Your task to perform on an android device: toggle notification dots Image 0: 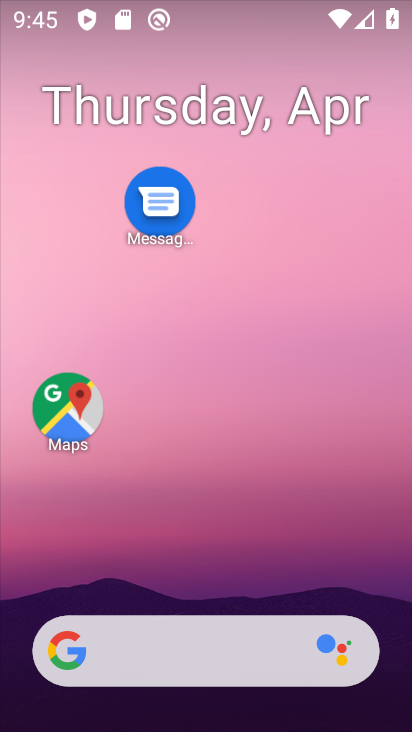
Step 0: drag from (201, 506) to (249, 74)
Your task to perform on an android device: toggle notification dots Image 1: 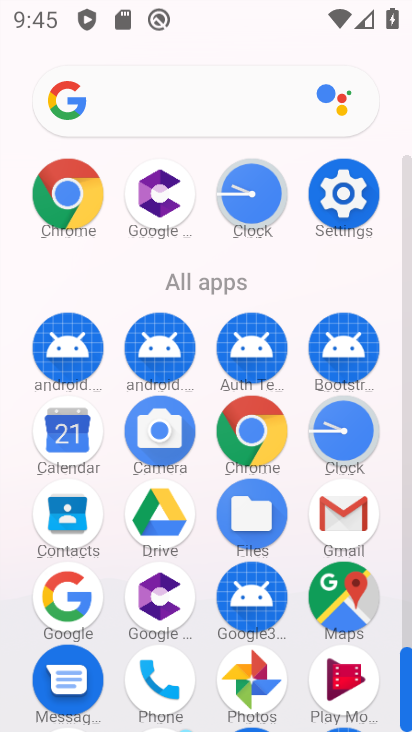
Step 1: click (332, 186)
Your task to perform on an android device: toggle notification dots Image 2: 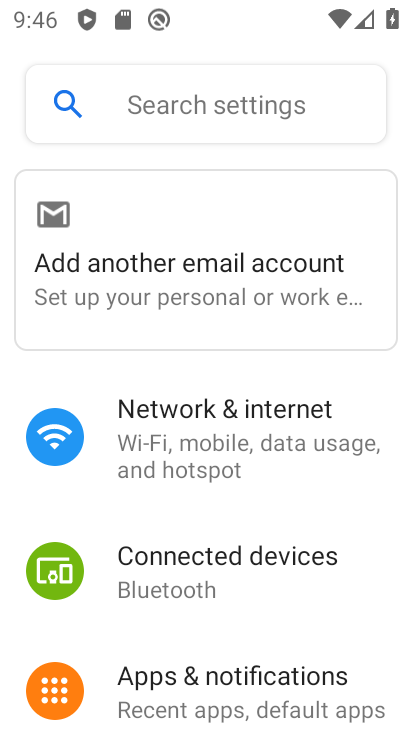
Step 2: drag from (246, 658) to (267, 441)
Your task to perform on an android device: toggle notification dots Image 3: 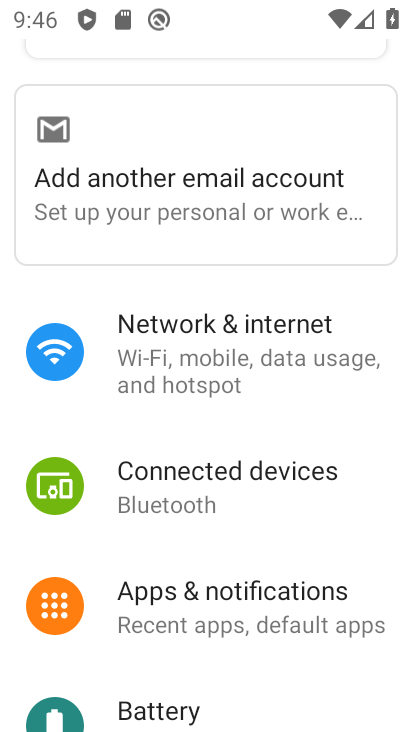
Step 3: click (236, 585)
Your task to perform on an android device: toggle notification dots Image 4: 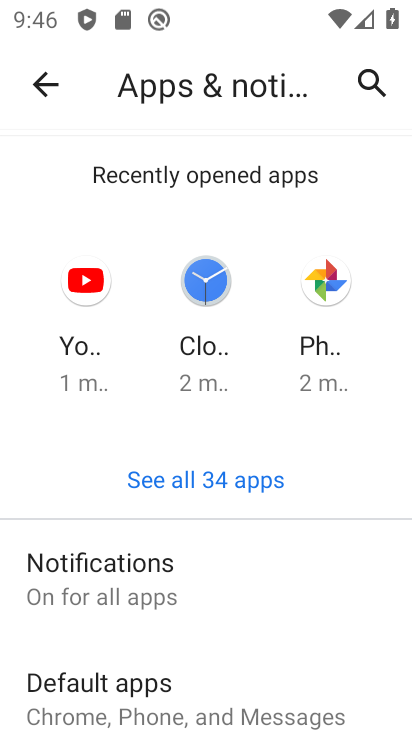
Step 4: click (163, 549)
Your task to perform on an android device: toggle notification dots Image 5: 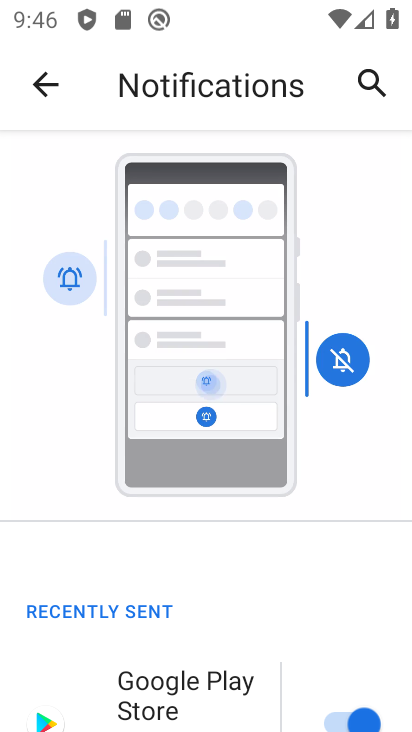
Step 5: drag from (192, 669) to (205, 172)
Your task to perform on an android device: toggle notification dots Image 6: 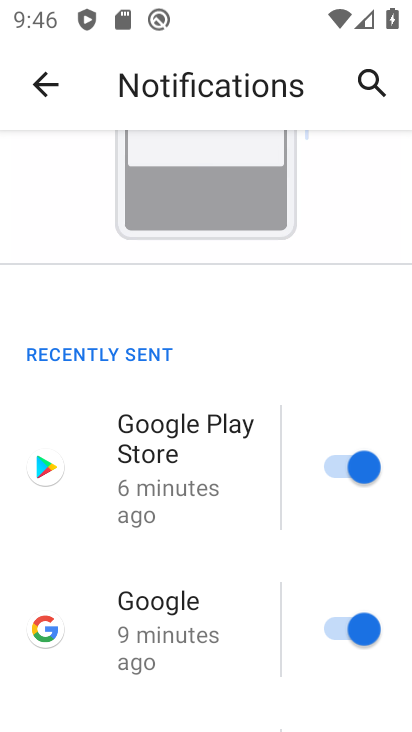
Step 6: drag from (238, 552) to (256, 190)
Your task to perform on an android device: toggle notification dots Image 7: 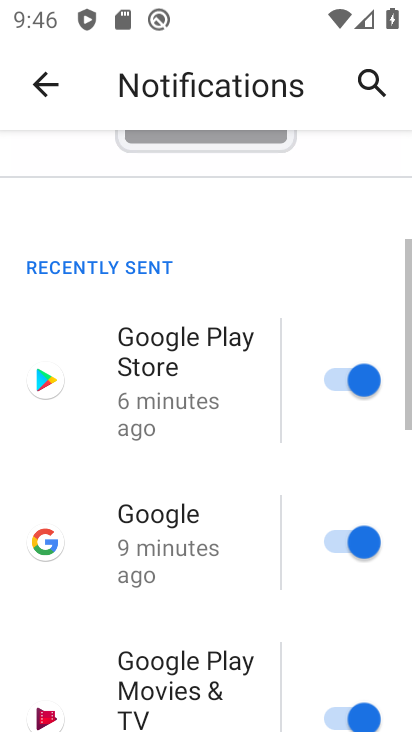
Step 7: drag from (180, 659) to (210, 284)
Your task to perform on an android device: toggle notification dots Image 8: 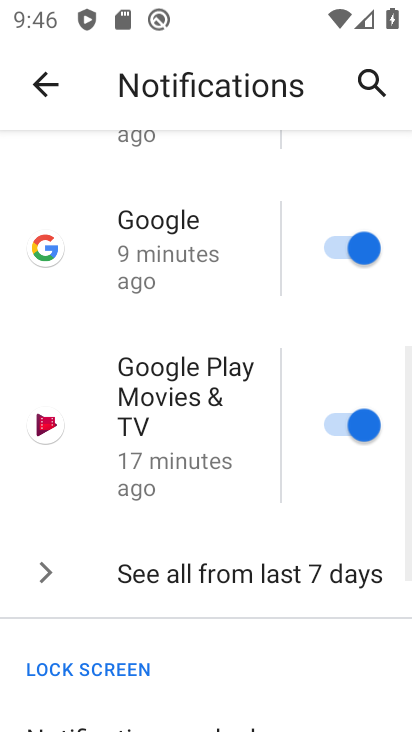
Step 8: drag from (197, 618) to (224, 299)
Your task to perform on an android device: toggle notification dots Image 9: 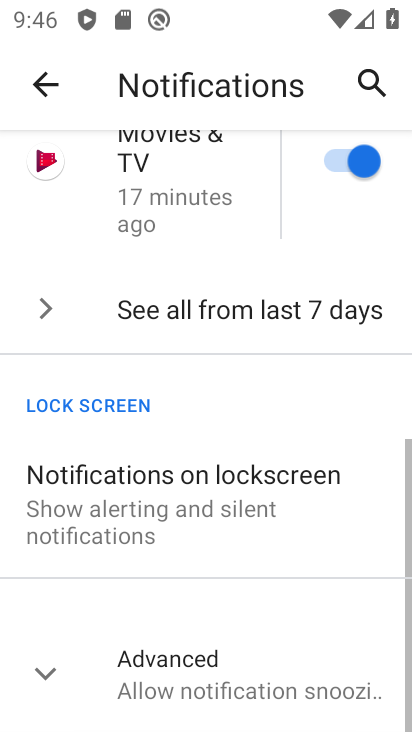
Step 9: click (227, 654)
Your task to perform on an android device: toggle notification dots Image 10: 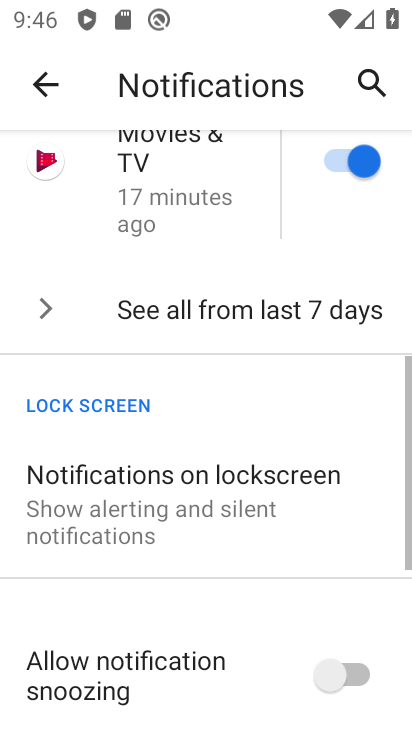
Step 10: drag from (236, 610) to (237, 267)
Your task to perform on an android device: toggle notification dots Image 11: 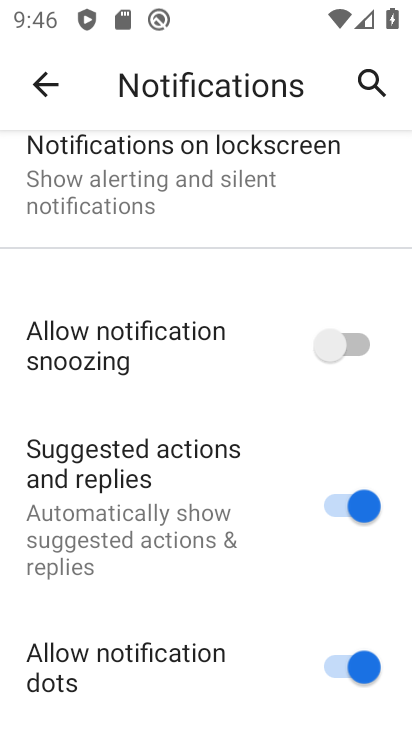
Step 11: click (337, 663)
Your task to perform on an android device: toggle notification dots Image 12: 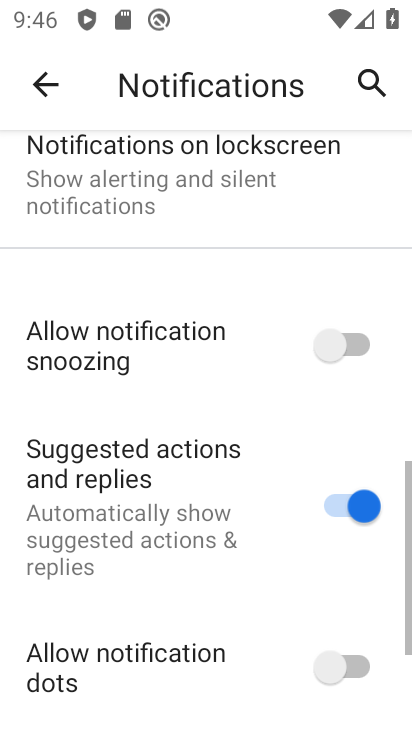
Step 12: task complete